Your task to perform on an android device: turn pop-ups on in chrome Image 0: 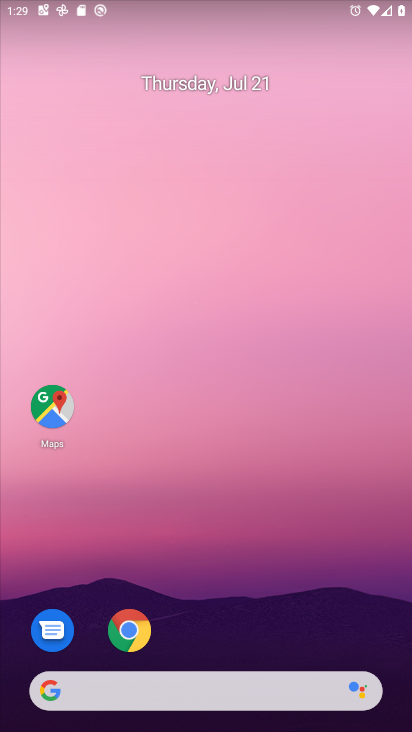
Step 0: drag from (186, 653) to (230, 282)
Your task to perform on an android device: turn pop-ups on in chrome Image 1: 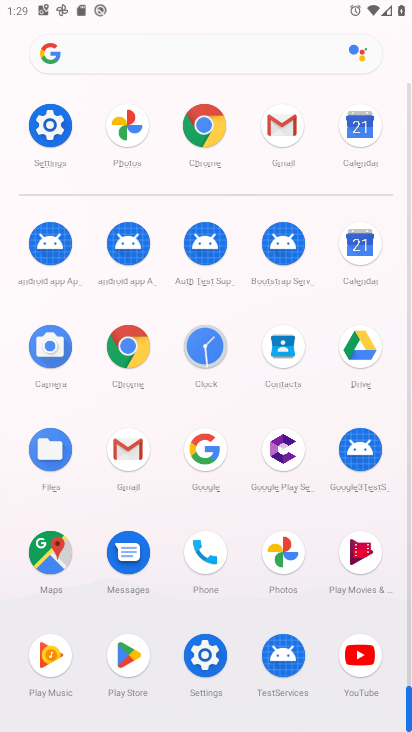
Step 1: click (125, 347)
Your task to perform on an android device: turn pop-ups on in chrome Image 2: 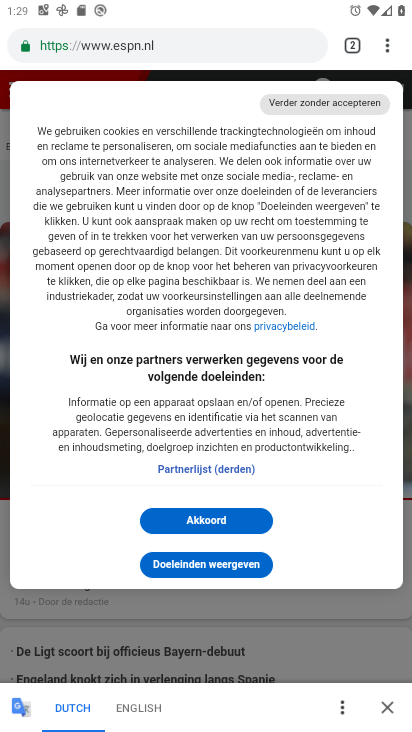
Step 2: drag from (388, 46) to (259, 543)
Your task to perform on an android device: turn pop-ups on in chrome Image 3: 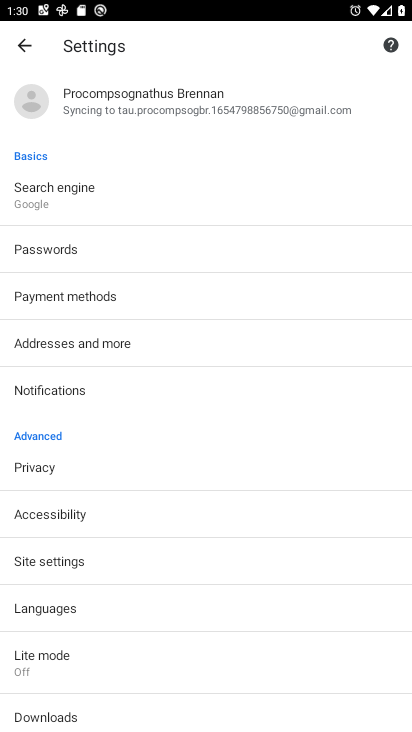
Step 3: click (62, 559)
Your task to perform on an android device: turn pop-ups on in chrome Image 4: 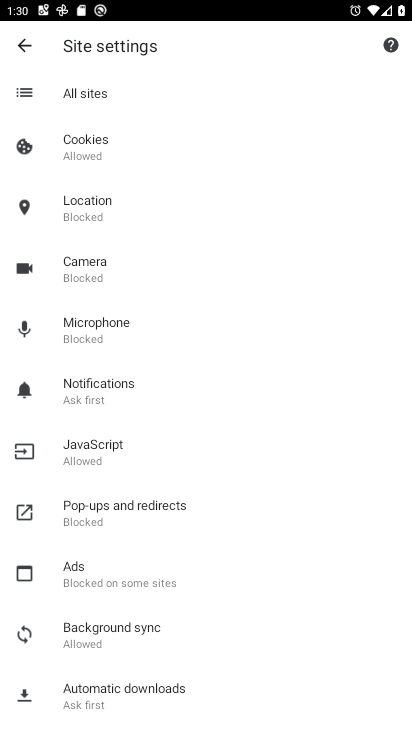
Step 4: click (157, 510)
Your task to perform on an android device: turn pop-ups on in chrome Image 5: 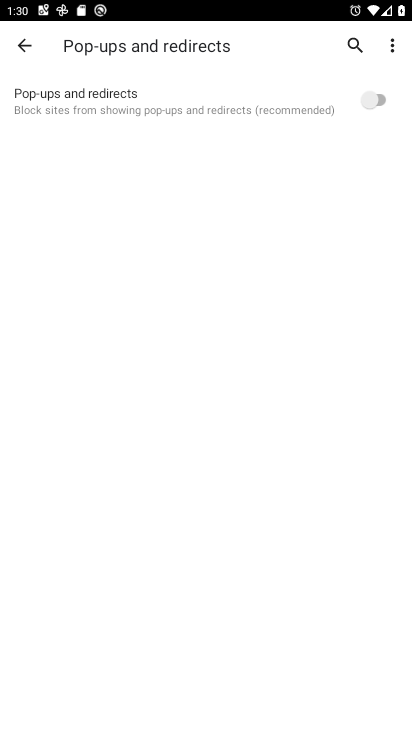
Step 5: click (307, 89)
Your task to perform on an android device: turn pop-ups on in chrome Image 6: 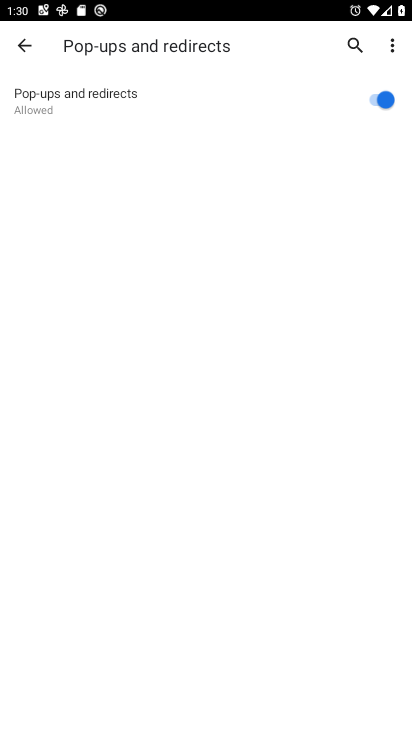
Step 6: task complete